Your task to perform on an android device: check the backup settings in the google photos Image 0: 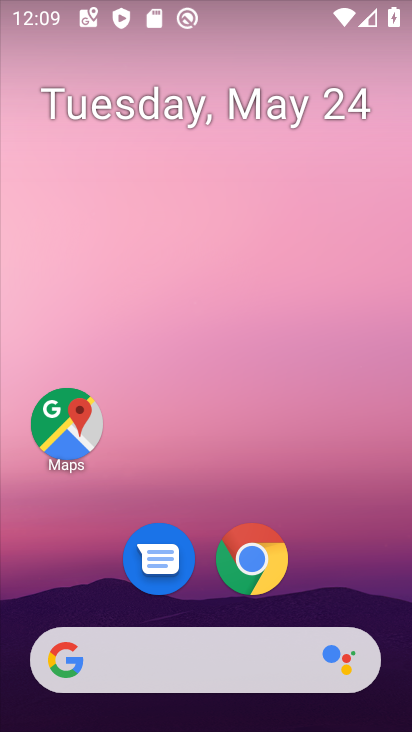
Step 0: drag from (262, 679) to (179, 229)
Your task to perform on an android device: check the backup settings in the google photos Image 1: 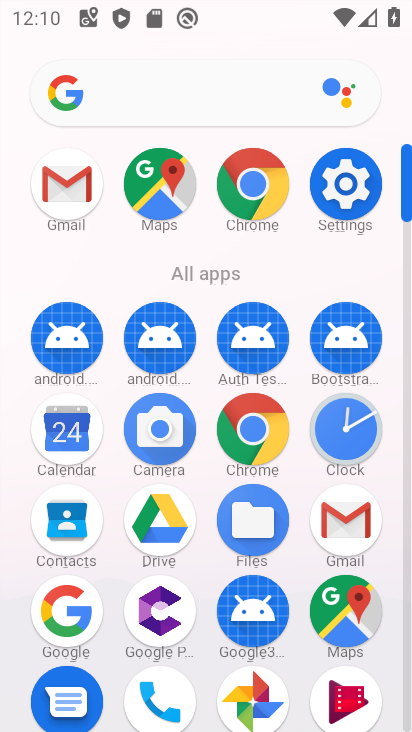
Step 1: click (251, 701)
Your task to perform on an android device: check the backup settings in the google photos Image 2: 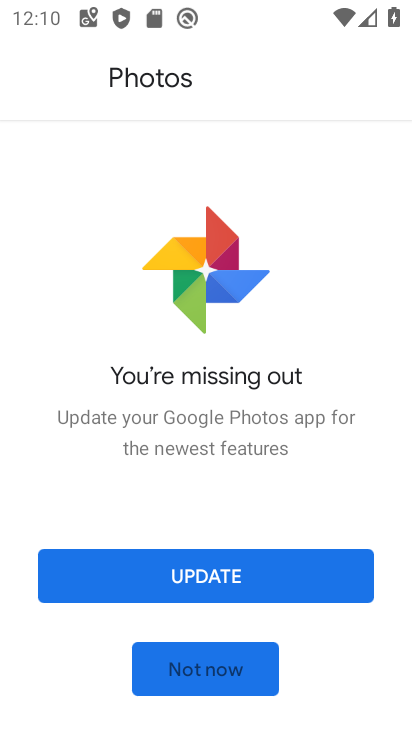
Step 2: click (218, 672)
Your task to perform on an android device: check the backup settings in the google photos Image 3: 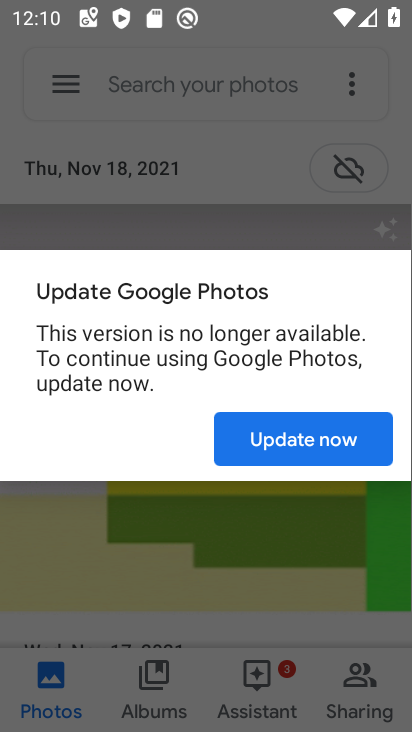
Step 3: click (310, 441)
Your task to perform on an android device: check the backup settings in the google photos Image 4: 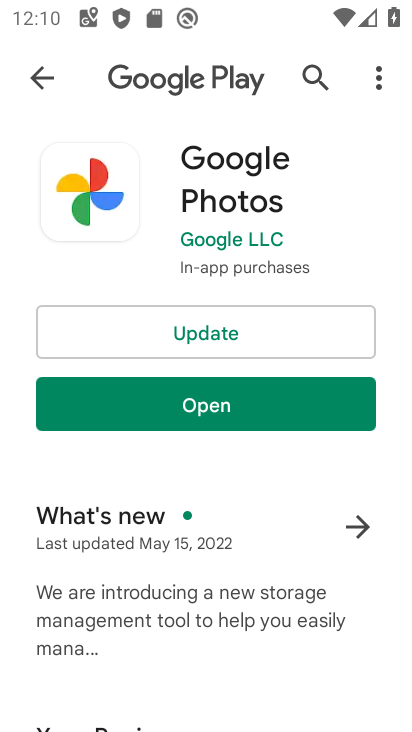
Step 4: click (222, 408)
Your task to perform on an android device: check the backup settings in the google photos Image 5: 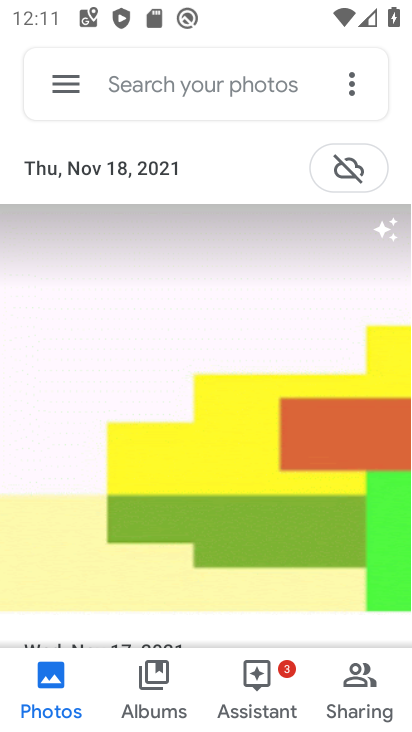
Step 5: task complete